Your task to perform on an android device: empty trash in the gmail app Image 0: 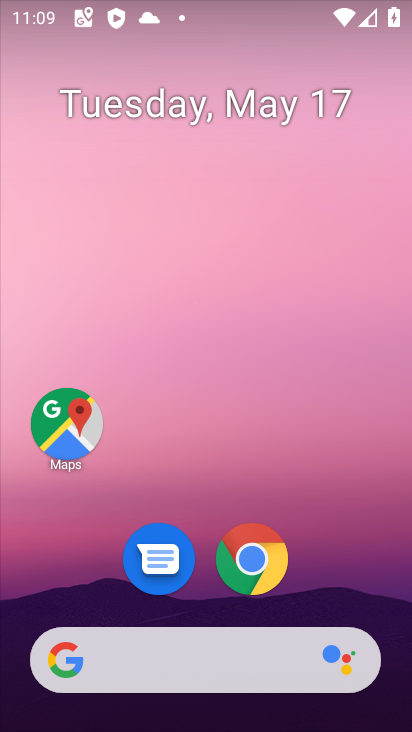
Step 0: drag from (244, 719) to (343, 125)
Your task to perform on an android device: empty trash in the gmail app Image 1: 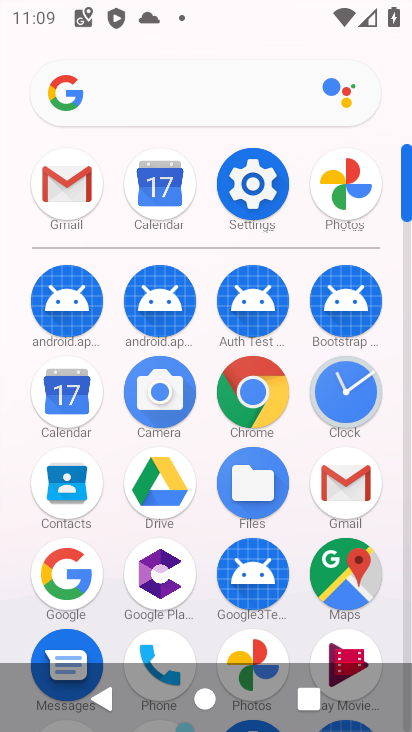
Step 1: click (336, 483)
Your task to perform on an android device: empty trash in the gmail app Image 2: 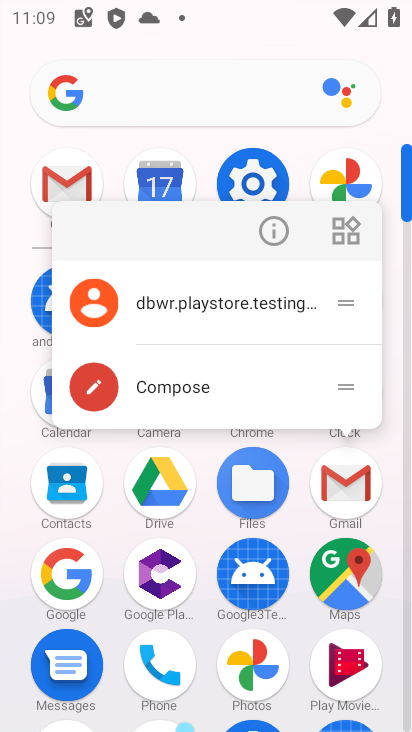
Step 2: click (361, 485)
Your task to perform on an android device: empty trash in the gmail app Image 3: 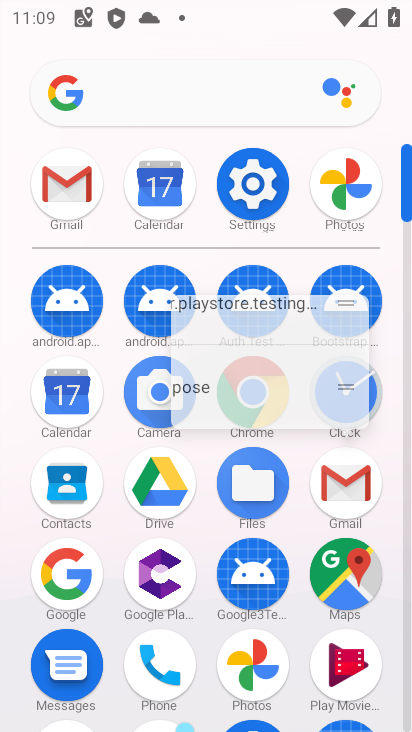
Step 3: click (361, 485)
Your task to perform on an android device: empty trash in the gmail app Image 4: 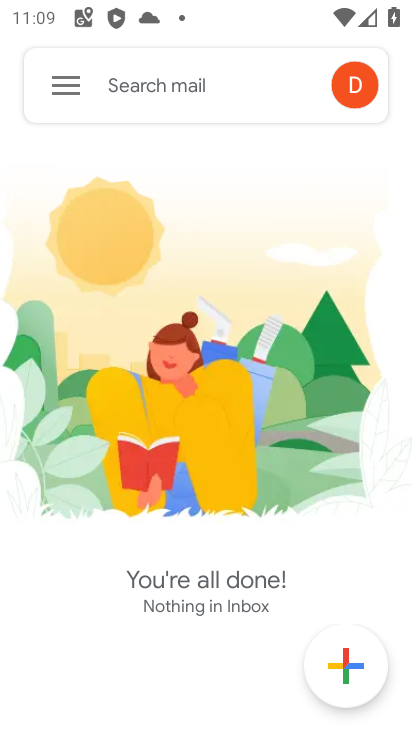
Step 4: click (76, 86)
Your task to perform on an android device: empty trash in the gmail app Image 5: 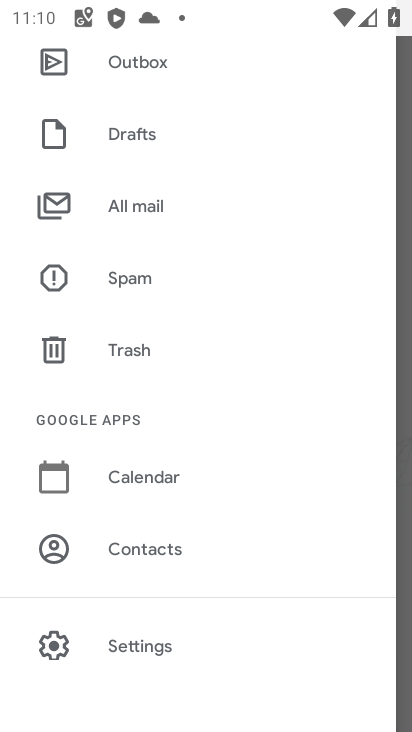
Step 5: click (148, 346)
Your task to perform on an android device: empty trash in the gmail app Image 6: 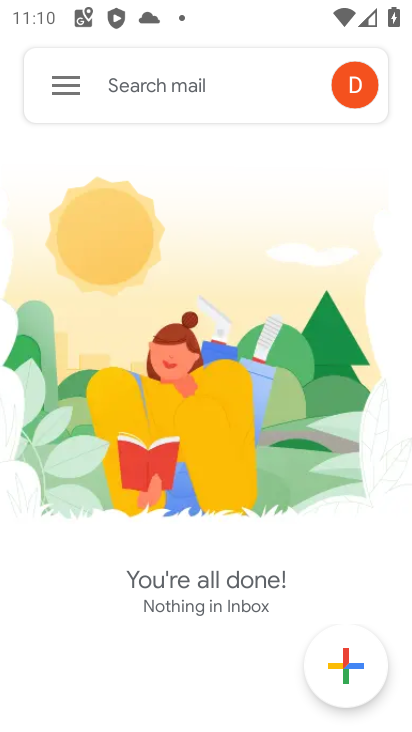
Step 6: task complete